Your task to perform on an android device: turn on wifi Image 0: 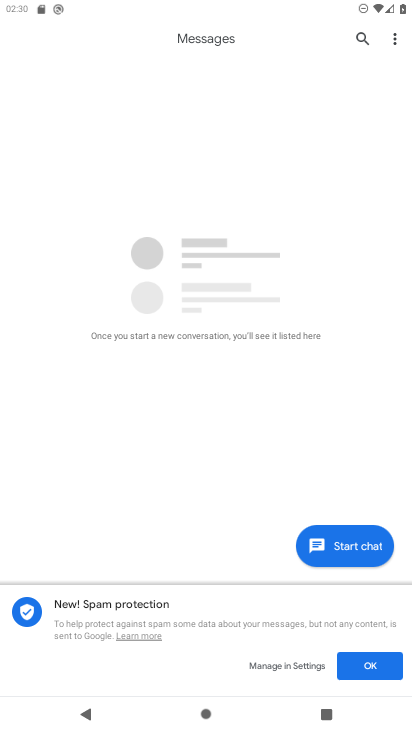
Step 0: press home button
Your task to perform on an android device: turn on wifi Image 1: 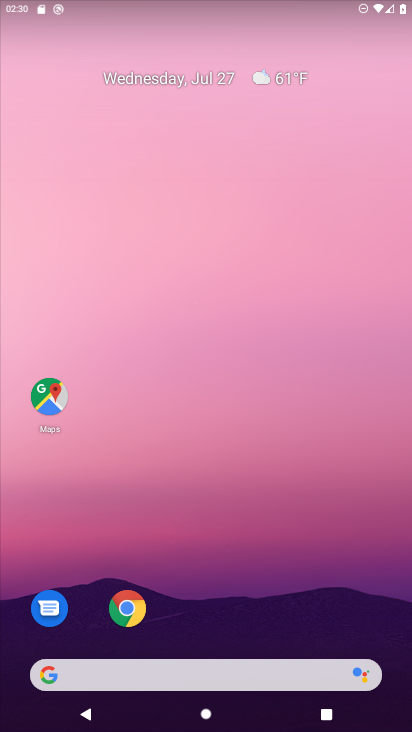
Step 1: drag from (251, 629) to (210, 74)
Your task to perform on an android device: turn on wifi Image 2: 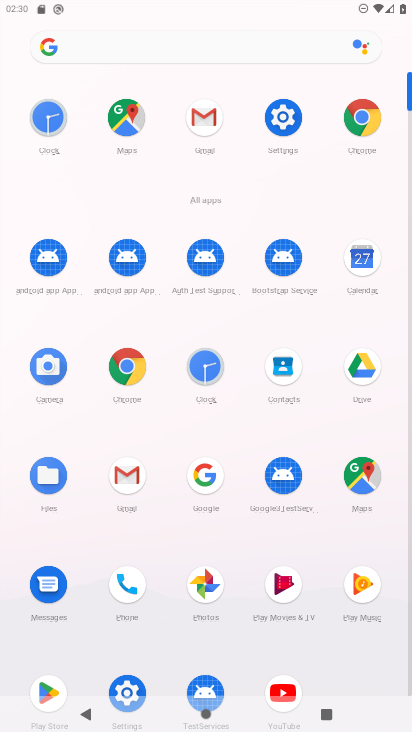
Step 2: click (279, 116)
Your task to perform on an android device: turn on wifi Image 3: 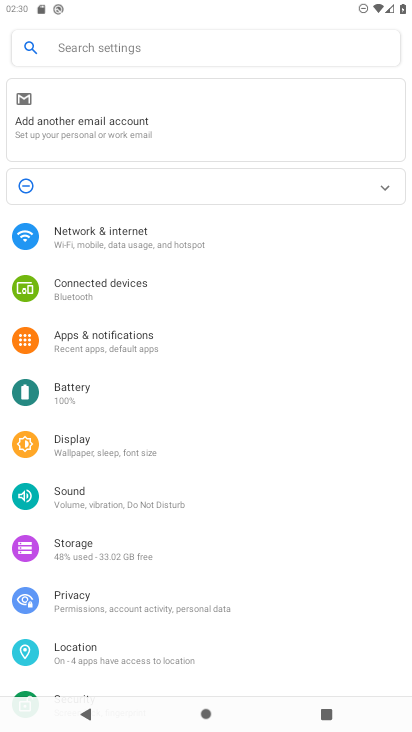
Step 3: drag from (326, 148) to (307, 4)
Your task to perform on an android device: turn on wifi Image 4: 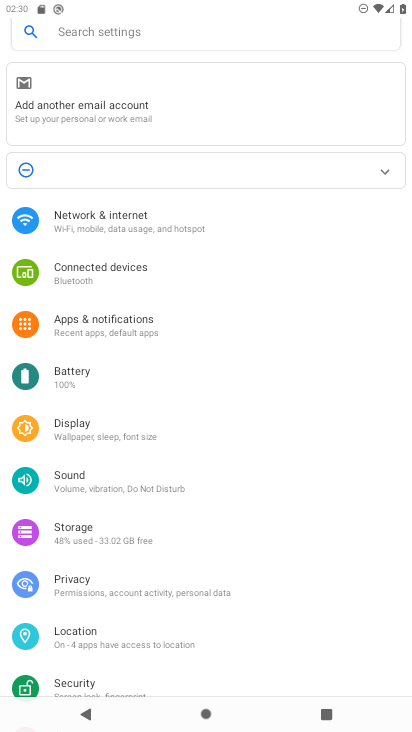
Step 4: click (269, 221)
Your task to perform on an android device: turn on wifi Image 5: 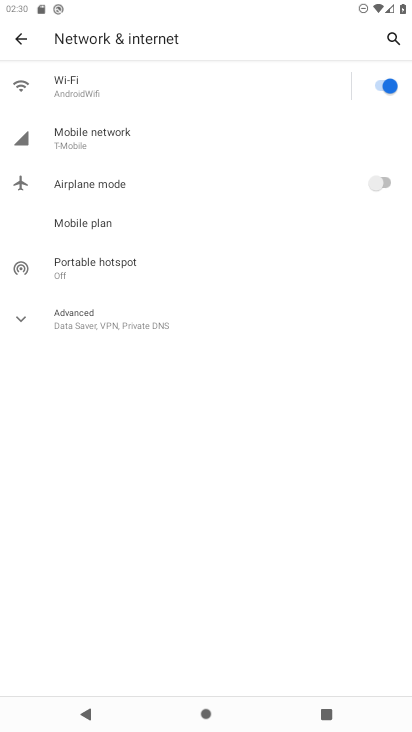
Step 5: task complete